Your task to perform on an android device: delete browsing data in the chrome app Image 0: 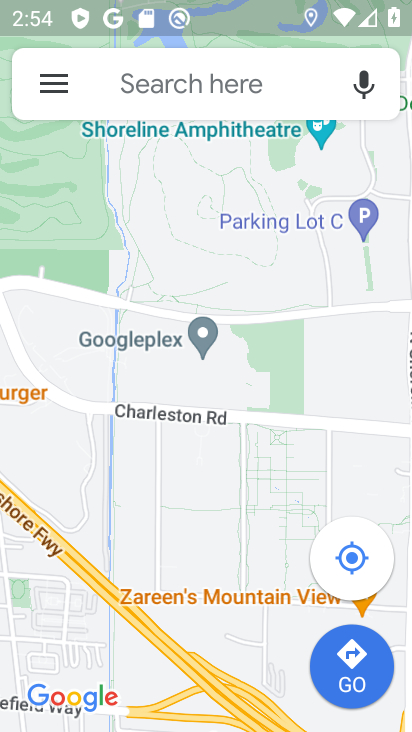
Step 0: press home button
Your task to perform on an android device: delete browsing data in the chrome app Image 1: 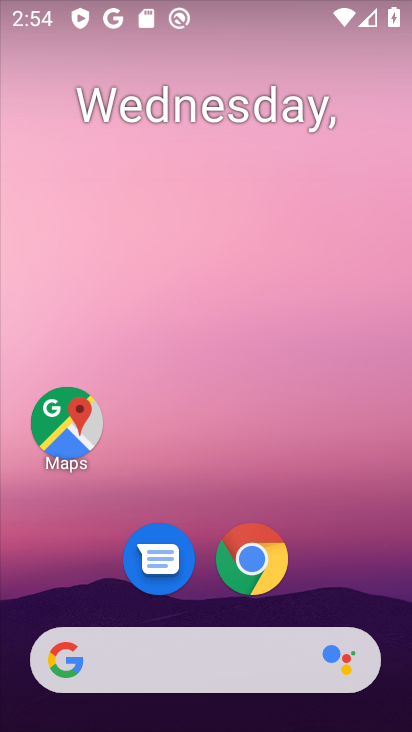
Step 1: click (258, 566)
Your task to perform on an android device: delete browsing data in the chrome app Image 2: 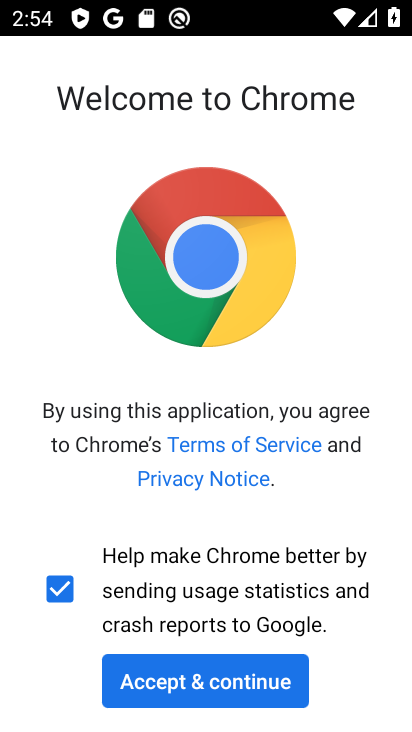
Step 2: click (265, 668)
Your task to perform on an android device: delete browsing data in the chrome app Image 3: 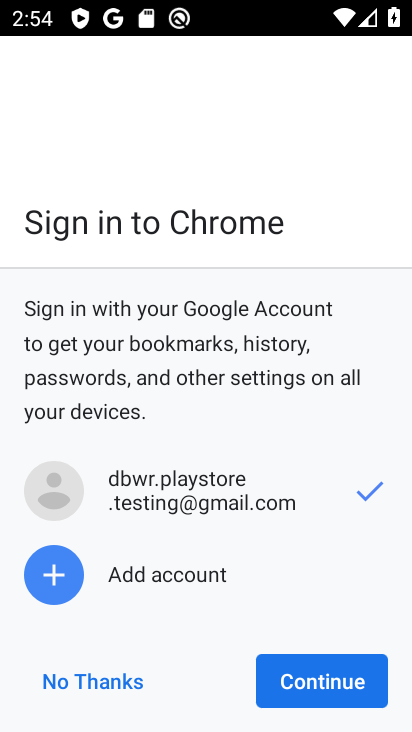
Step 3: click (351, 685)
Your task to perform on an android device: delete browsing data in the chrome app Image 4: 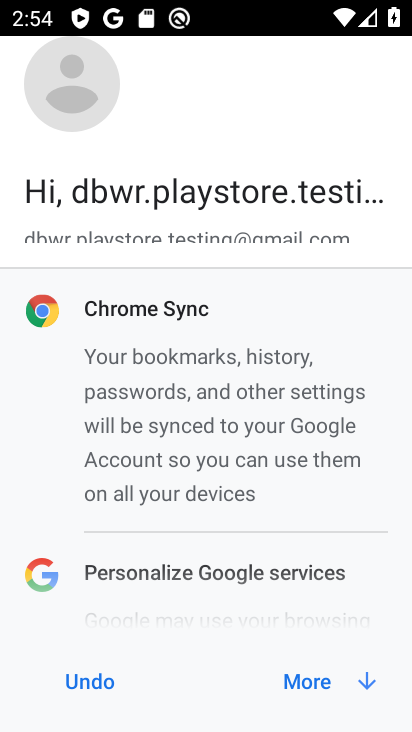
Step 4: click (348, 687)
Your task to perform on an android device: delete browsing data in the chrome app Image 5: 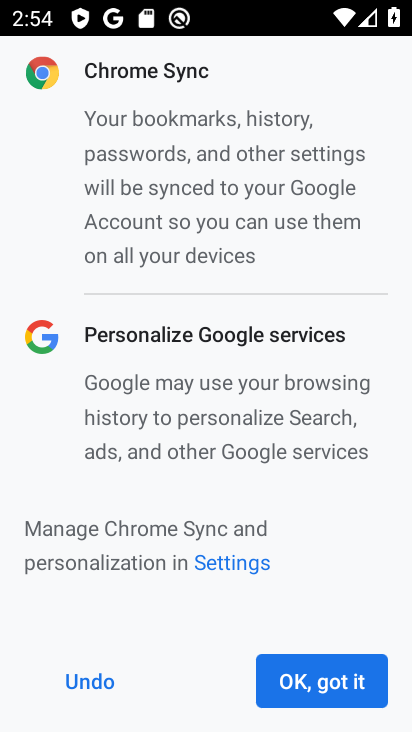
Step 5: click (346, 690)
Your task to perform on an android device: delete browsing data in the chrome app Image 6: 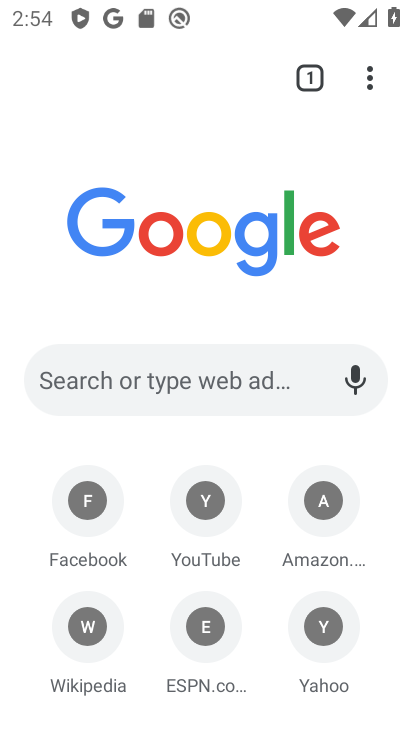
Step 6: click (372, 85)
Your task to perform on an android device: delete browsing data in the chrome app Image 7: 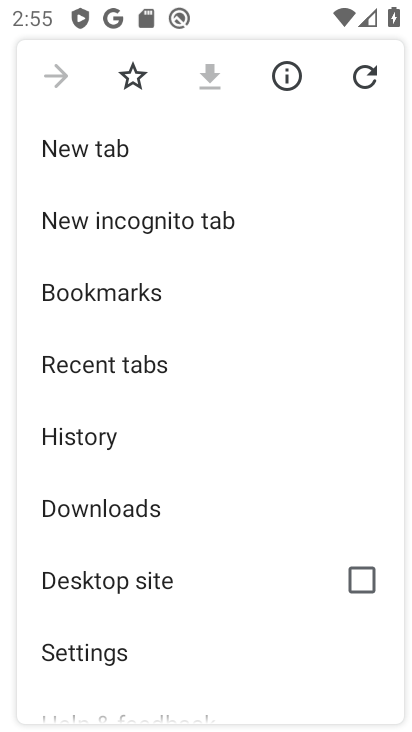
Step 7: click (119, 443)
Your task to perform on an android device: delete browsing data in the chrome app Image 8: 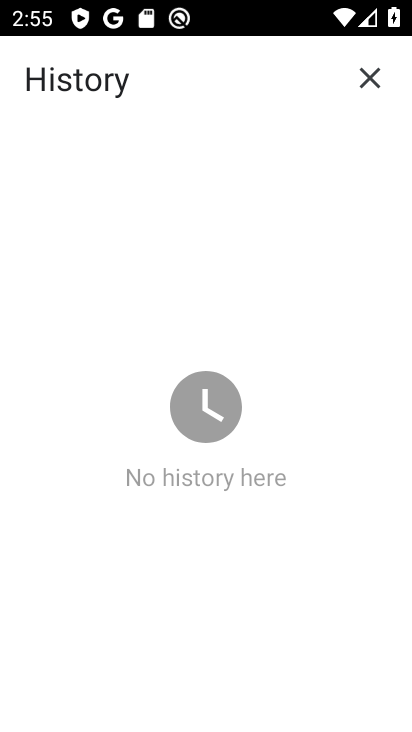
Step 8: task complete